Your task to perform on an android device: Clear the shopping cart on amazon. Image 0: 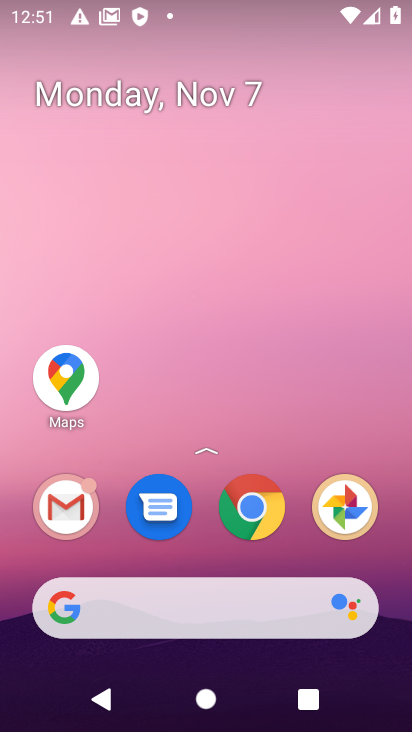
Step 0: drag from (104, 633) to (141, 0)
Your task to perform on an android device: Clear the shopping cart on amazon. Image 1: 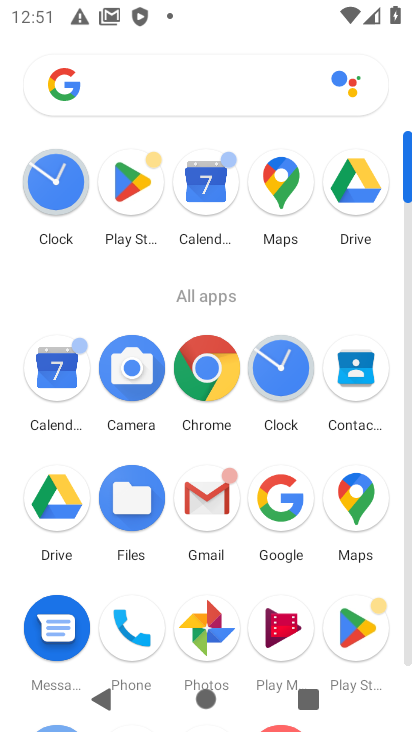
Step 1: click (210, 374)
Your task to perform on an android device: Clear the shopping cart on amazon. Image 2: 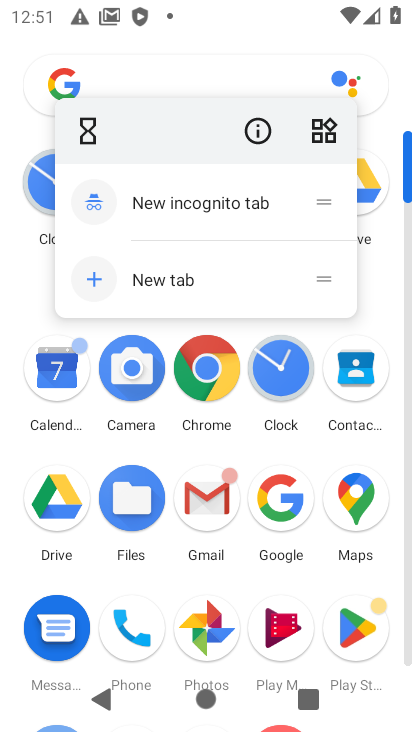
Step 2: click (209, 371)
Your task to perform on an android device: Clear the shopping cart on amazon. Image 3: 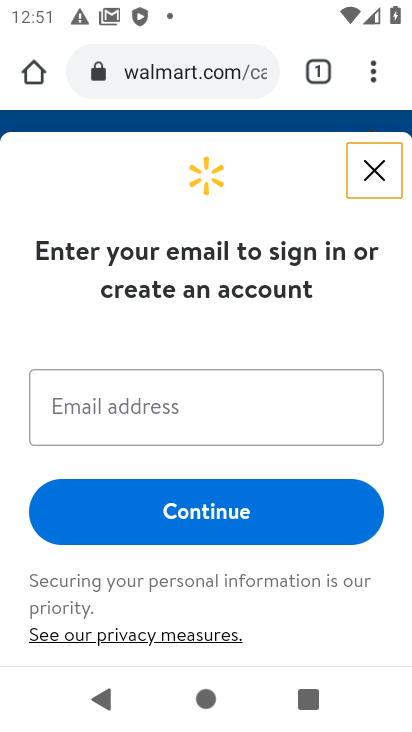
Step 3: click (215, 74)
Your task to perform on an android device: Clear the shopping cart on amazon. Image 4: 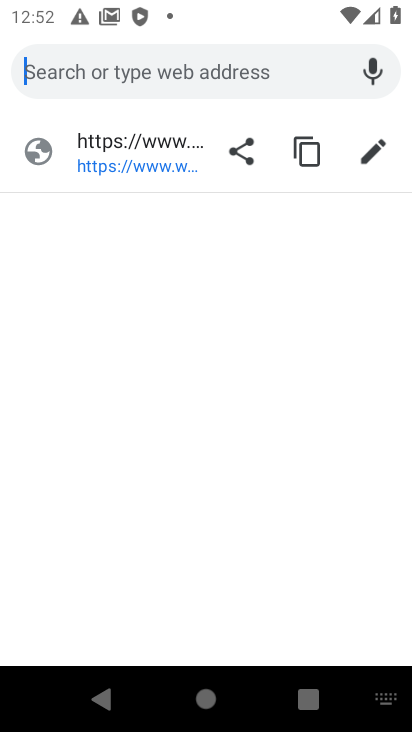
Step 4: press enter
Your task to perform on an android device: Clear the shopping cart on amazon. Image 5: 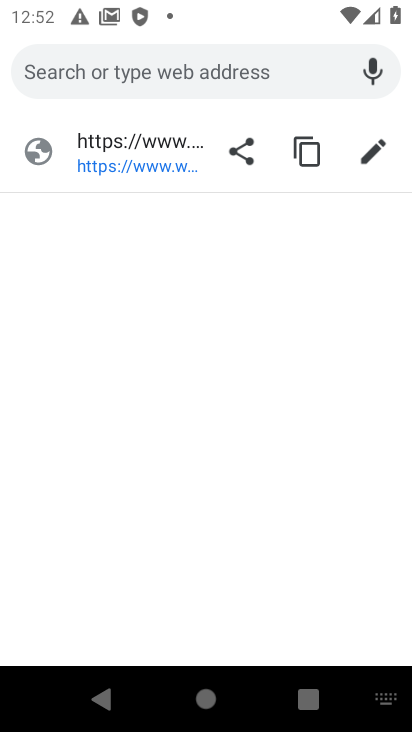
Step 5: type "amazon"
Your task to perform on an android device: Clear the shopping cart on amazon. Image 6: 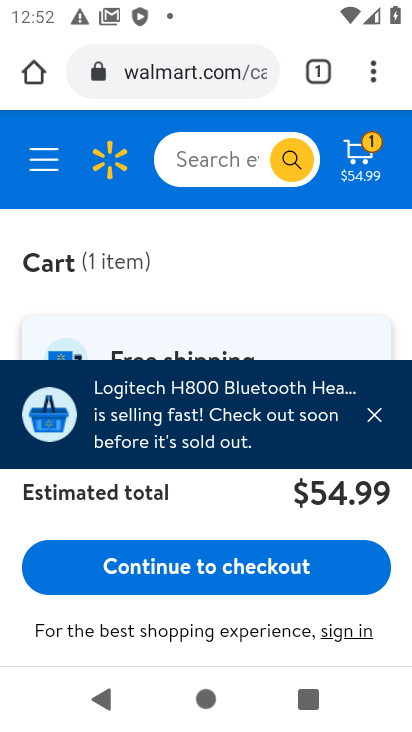
Step 6: click (358, 155)
Your task to perform on an android device: Clear the shopping cart on amazon. Image 7: 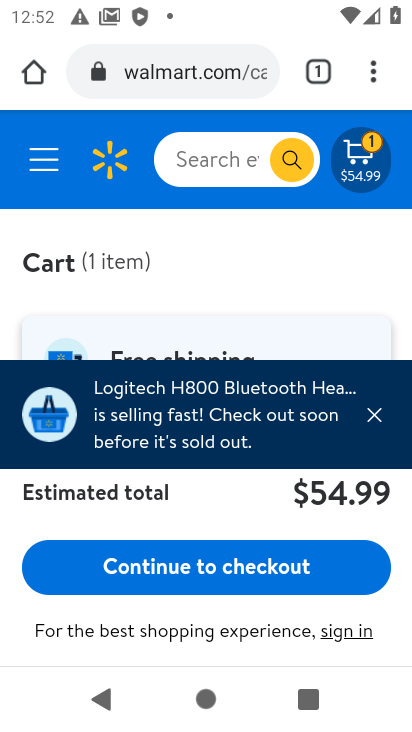
Step 7: click (366, 162)
Your task to perform on an android device: Clear the shopping cart on amazon. Image 8: 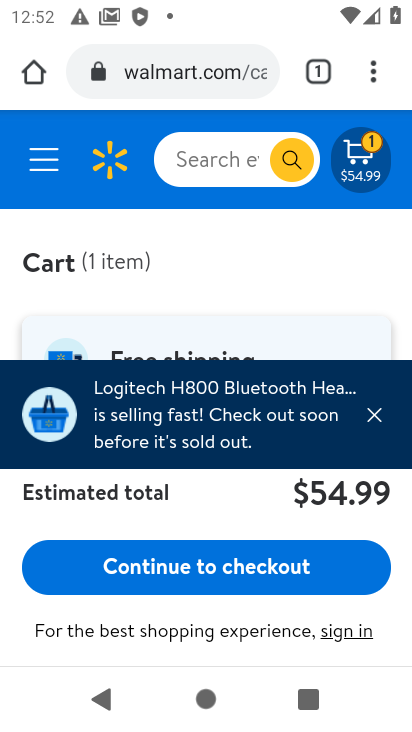
Step 8: click (366, 162)
Your task to perform on an android device: Clear the shopping cart on amazon. Image 9: 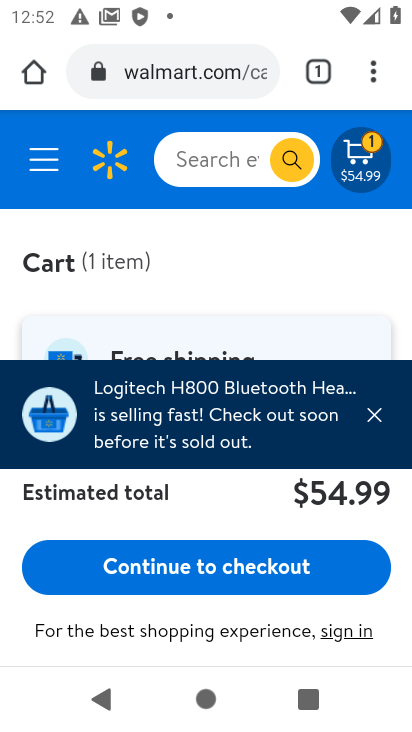
Step 9: click (366, 162)
Your task to perform on an android device: Clear the shopping cart on amazon. Image 10: 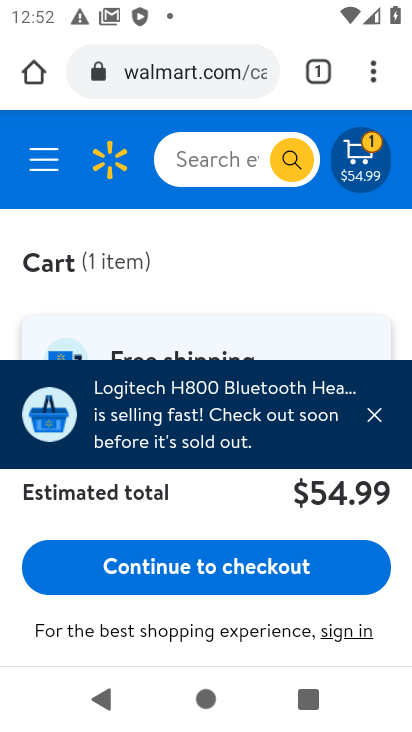
Step 10: click (366, 162)
Your task to perform on an android device: Clear the shopping cart on amazon. Image 11: 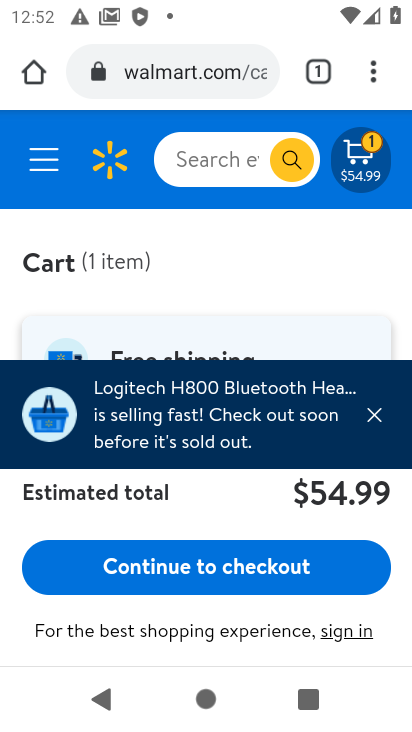
Step 11: click (366, 162)
Your task to perform on an android device: Clear the shopping cart on amazon. Image 12: 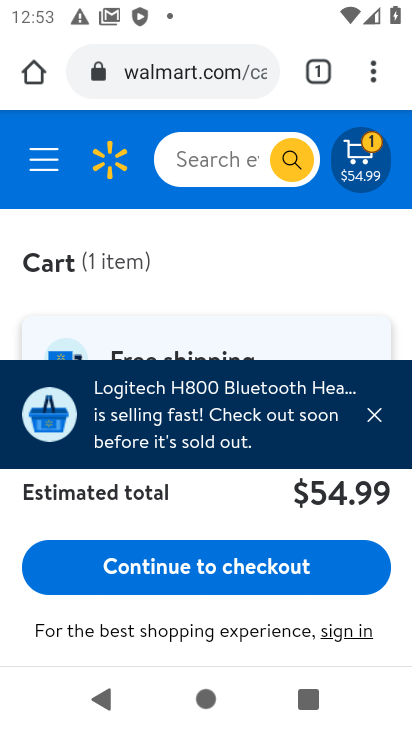
Step 12: click (366, 162)
Your task to perform on an android device: Clear the shopping cart on amazon. Image 13: 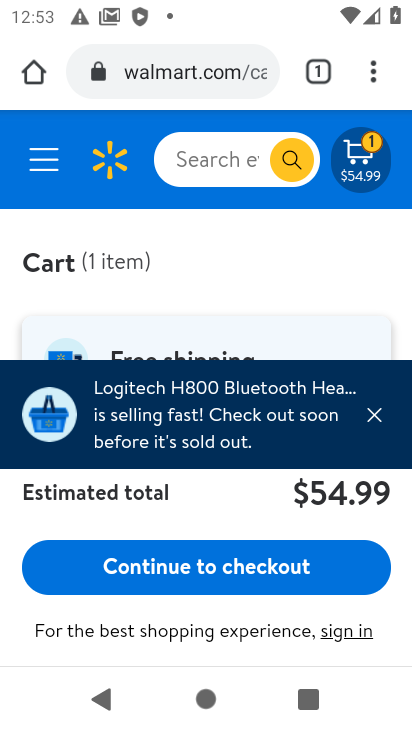
Step 13: click (366, 162)
Your task to perform on an android device: Clear the shopping cart on amazon. Image 14: 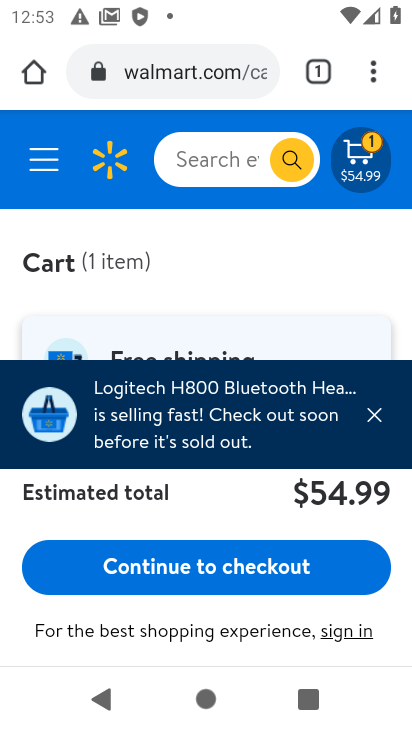
Step 14: click (378, 415)
Your task to perform on an android device: Clear the shopping cart on amazon. Image 15: 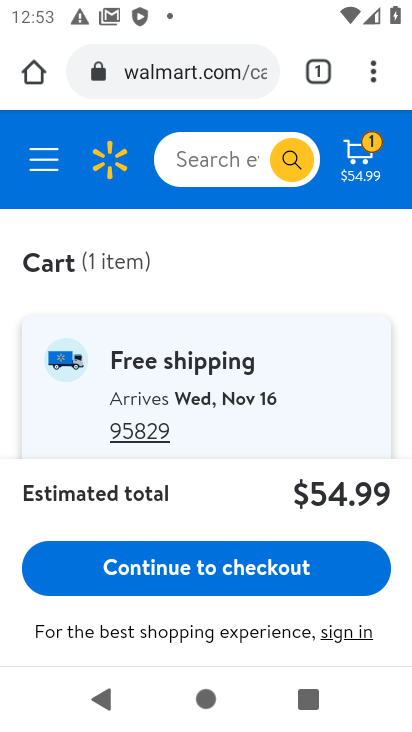
Step 15: click (355, 161)
Your task to perform on an android device: Clear the shopping cart on amazon. Image 16: 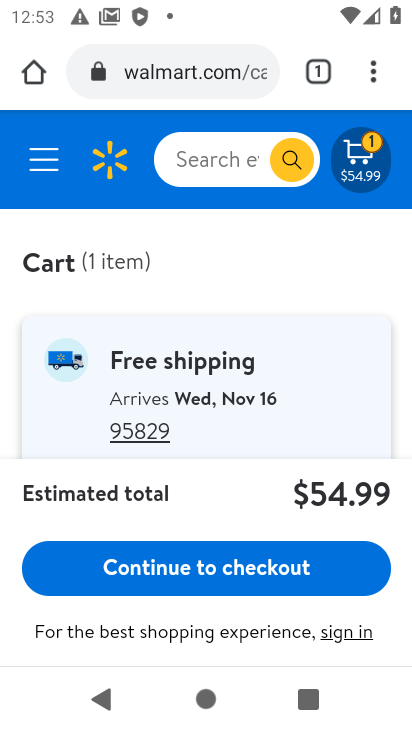
Step 16: click (196, 78)
Your task to perform on an android device: Clear the shopping cart on amazon. Image 17: 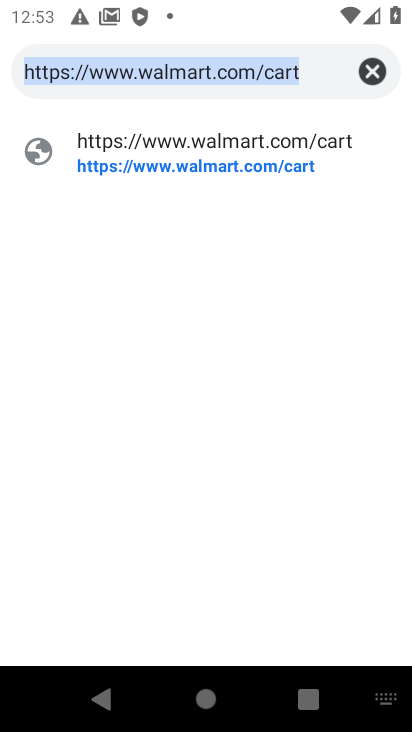
Step 17: click (372, 74)
Your task to perform on an android device: Clear the shopping cart on amazon. Image 18: 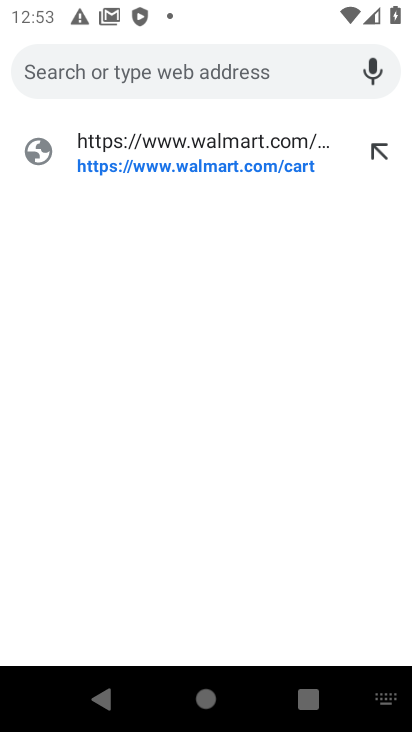
Step 18: type "amazon"
Your task to perform on an android device: Clear the shopping cart on amazon. Image 19: 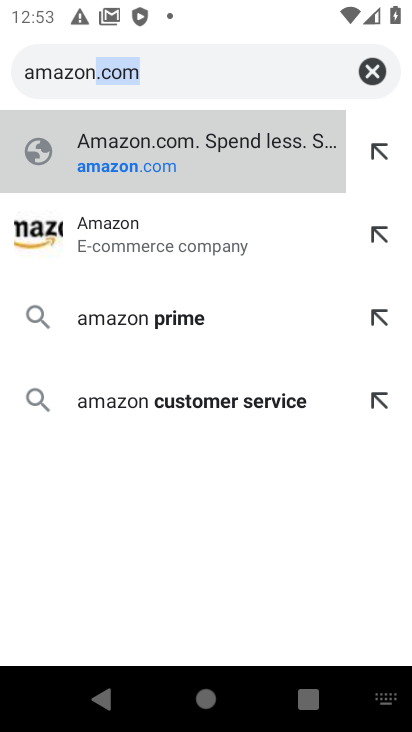
Step 19: press enter
Your task to perform on an android device: Clear the shopping cart on amazon. Image 20: 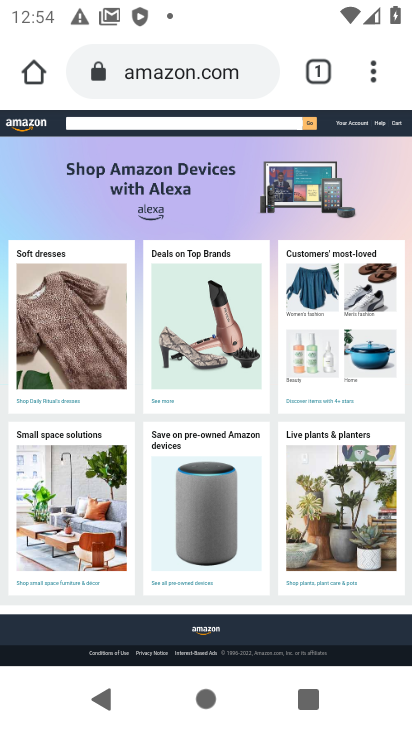
Step 20: drag from (214, 597) to (347, 194)
Your task to perform on an android device: Clear the shopping cart on amazon. Image 21: 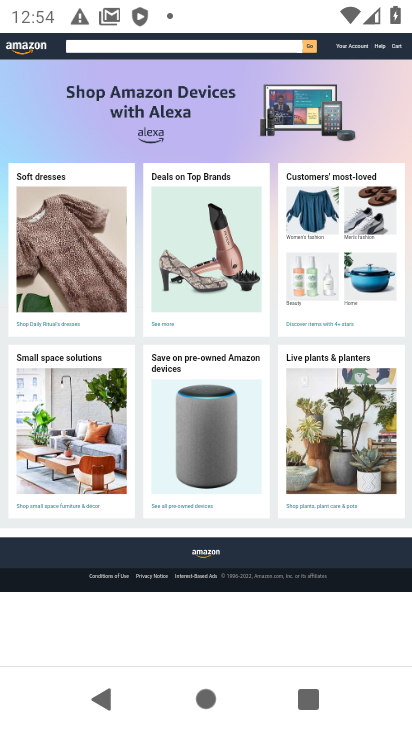
Step 21: drag from (321, 260) to (262, 563)
Your task to perform on an android device: Clear the shopping cart on amazon. Image 22: 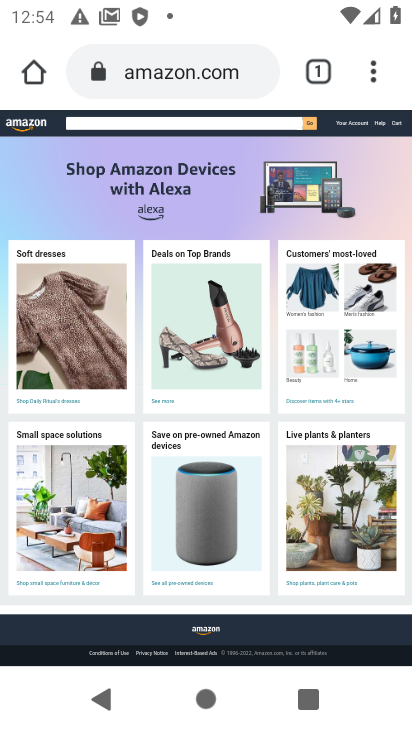
Step 22: click (396, 121)
Your task to perform on an android device: Clear the shopping cart on amazon. Image 23: 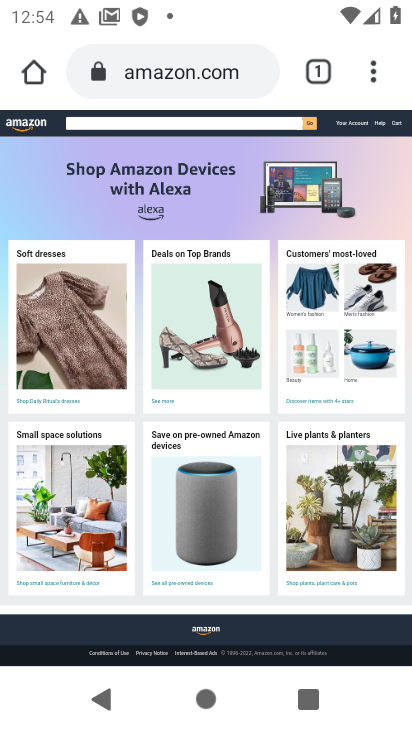
Step 23: click (396, 126)
Your task to perform on an android device: Clear the shopping cart on amazon. Image 24: 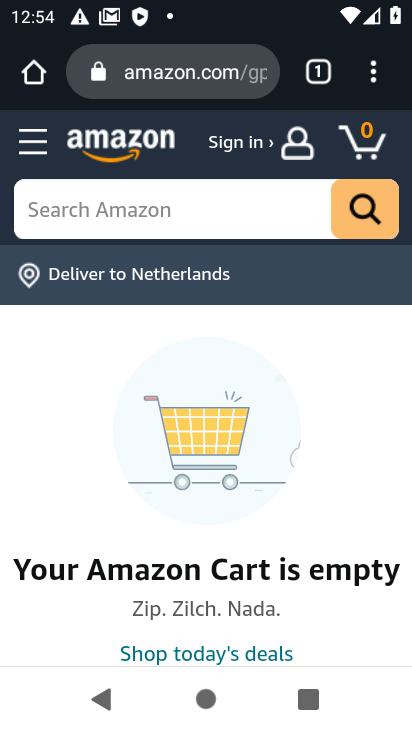
Step 24: task complete